Your task to perform on an android device: set the stopwatch Image 0: 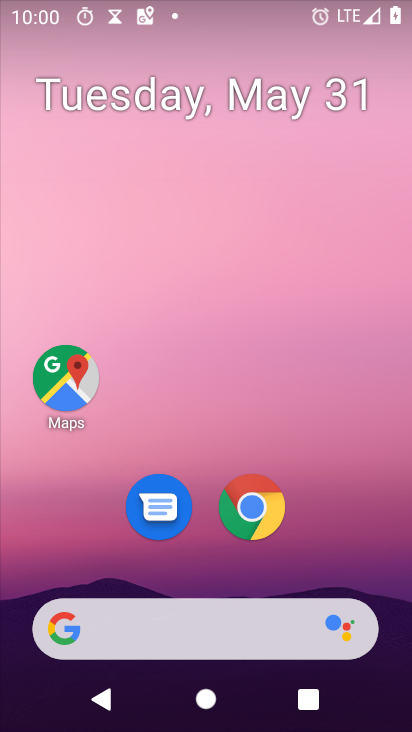
Step 0: drag from (16, 680) to (279, 149)
Your task to perform on an android device: set the stopwatch Image 1: 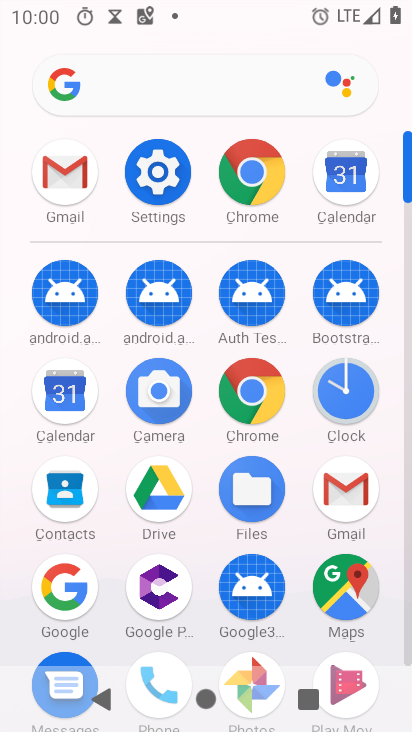
Step 1: click (345, 409)
Your task to perform on an android device: set the stopwatch Image 2: 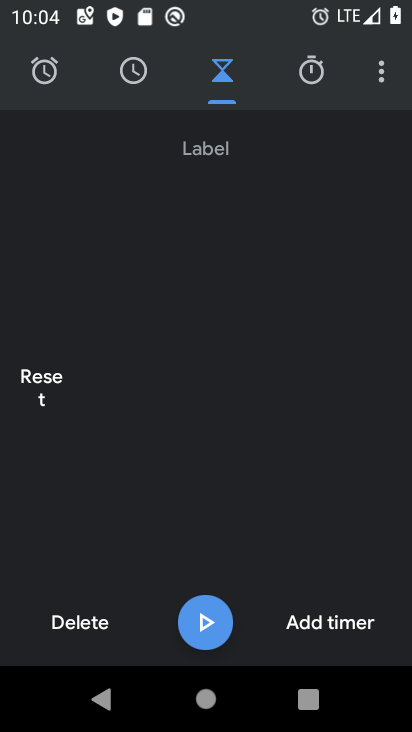
Step 2: click (312, 72)
Your task to perform on an android device: set the stopwatch Image 3: 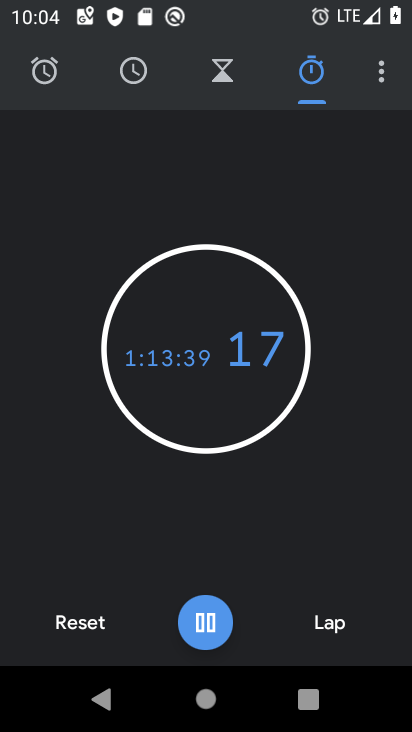
Step 3: task complete